Your task to perform on an android device: choose inbox layout in the gmail app Image 0: 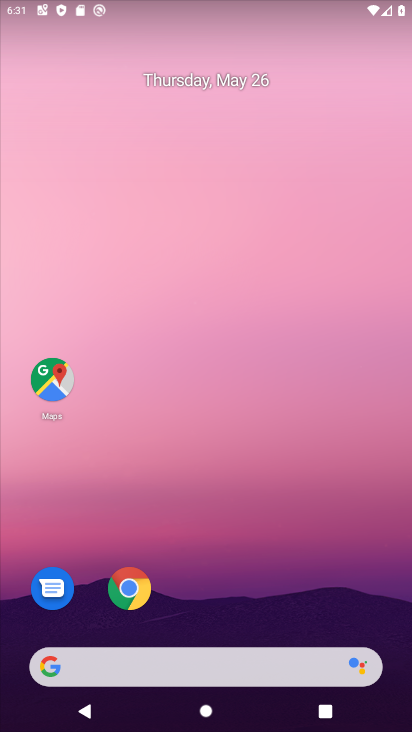
Step 0: drag from (366, 616) to (315, 28)
Your task to perform on an android device: choose inbox layout in the gmail app Image 1: 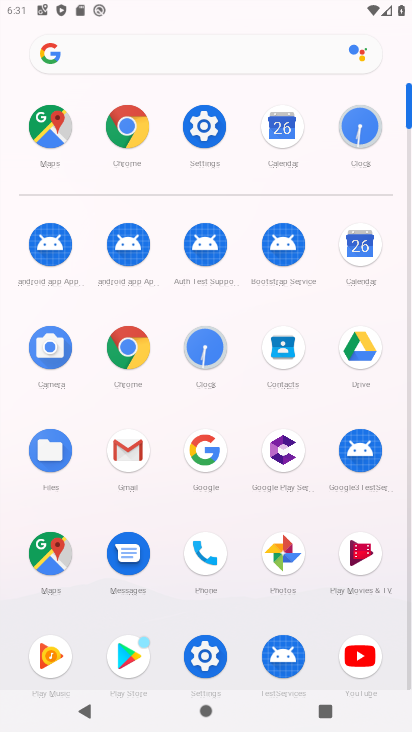
Step 1: click (123, 461)
Your task to perform on an android device: choose inbox layout in the gmail app Image 2: 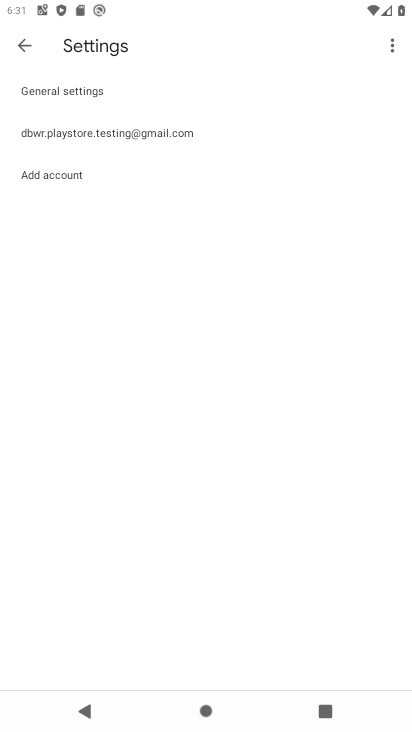
Step 2: press back button
Your task to perform on an android device: choose inbox layout in the gmail app Image 3: 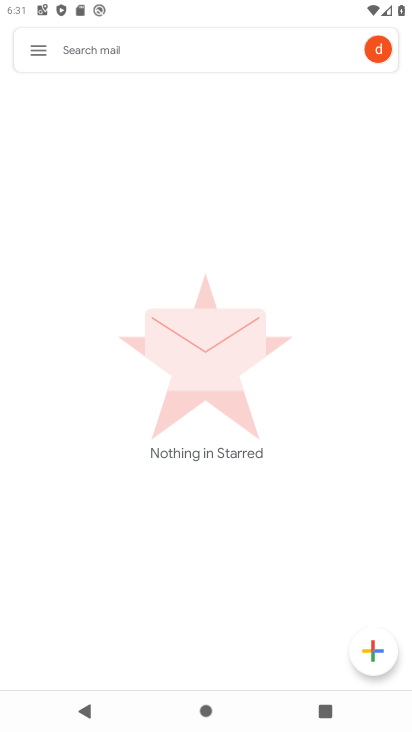
Step 3: click (35, 55)
Your task to perform on an android device: choose inbox layout in the gmail app Image 4: 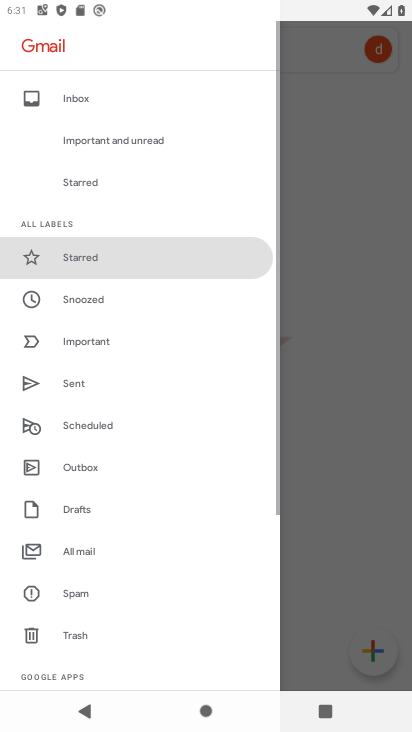
Step 4: click (89, 90)
Your task to perform on an android device: choose inbox layout in the gmail app Image 5: 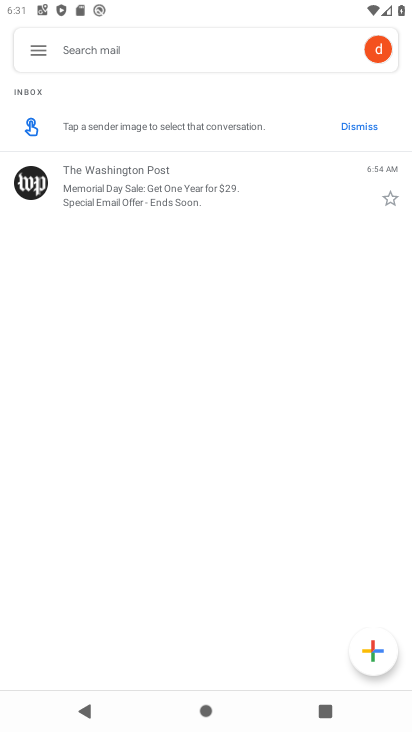
Step 5: task complete